Your task to perform on an android device: What's the weather? Image 0: 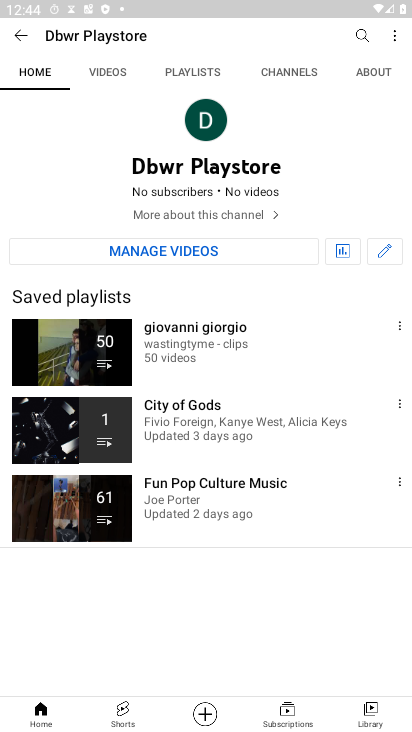
Step 0: press home button
Your task to perform on an android device: What's the weather? Image 1: 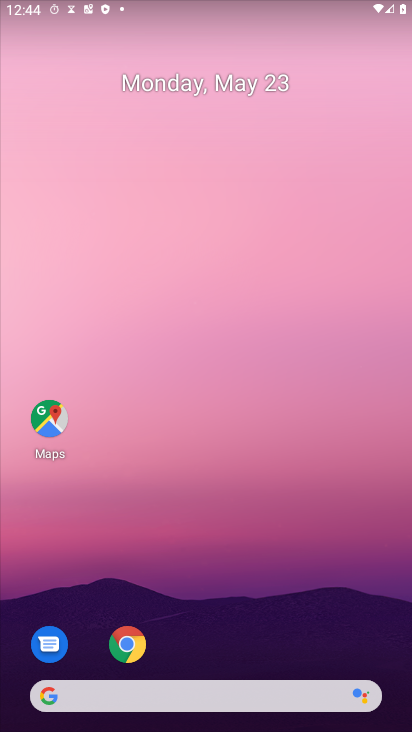
Step 1: click (166, 691)
Your task to perform on an android device: What's the weather? Image 2: 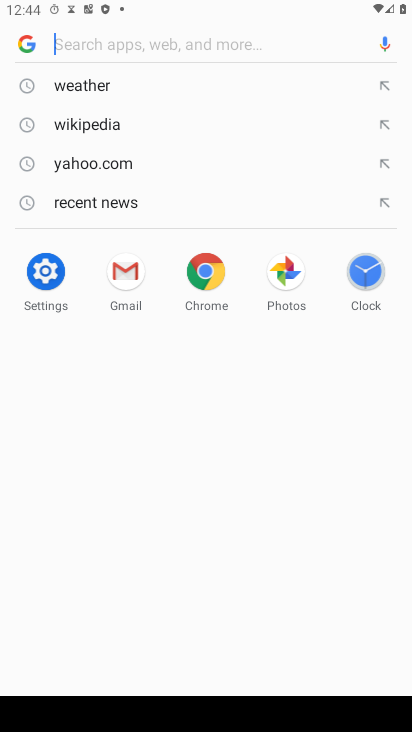
Step 2: click (114, 86)
Your task to perform on an android device: What's the weather? Image 3: 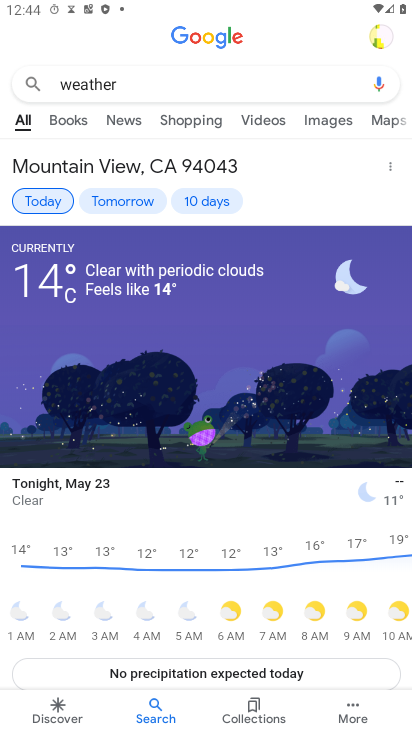
Step 3: task complete